Your task to perform on an android device: Open the Play Movies app and select the watchlist tab. Image 0: 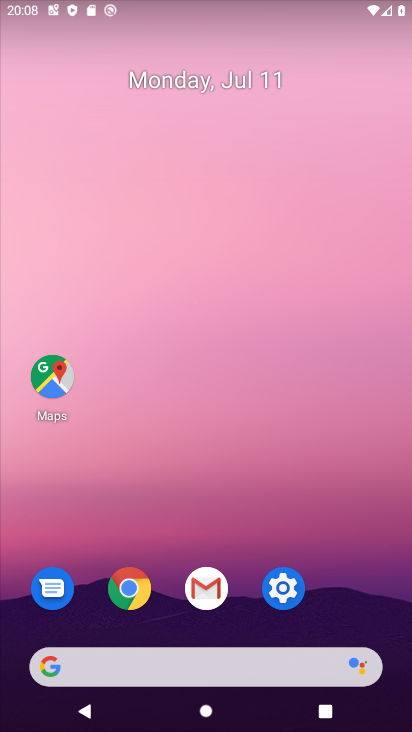
Step 0: drag from (243, 686) to (159, 232)
Your task to perform on an android device: Open the Play Movies app and select the watchlist tab. Image 1: 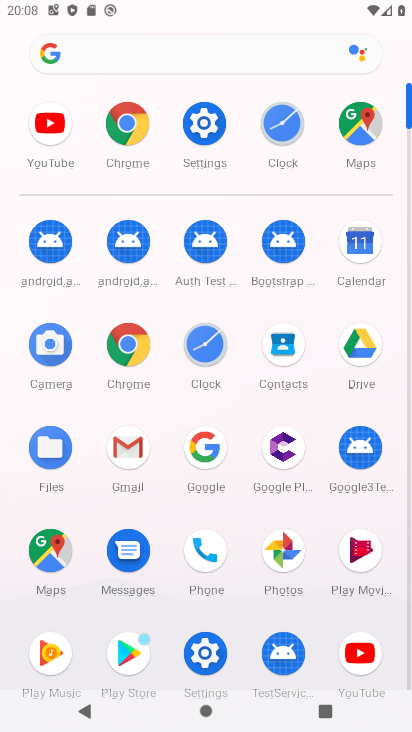
Step 1: click (364, 565)
Your task to perform on an android device: Open the Play Movies app and select the watchlist tab. Image 2: 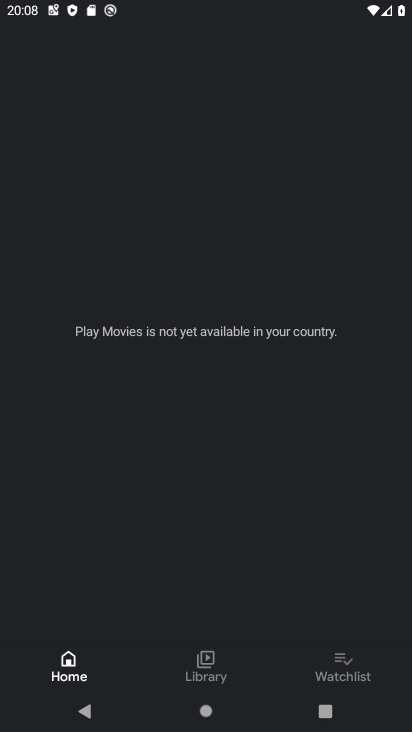
Step 2: click (340, 663)
Your task to perform on an android device: Open the Play Movies app and select the watchlist tab. Image 3: 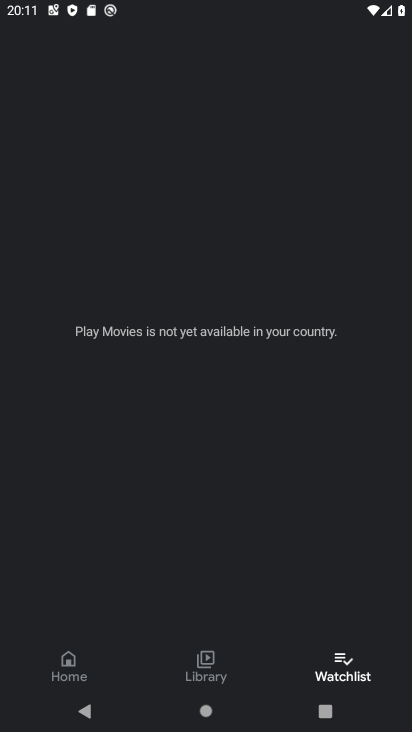
Step 3: task complete